Your task to perform on an android device: Show me popular games on the Play Store Image 0: 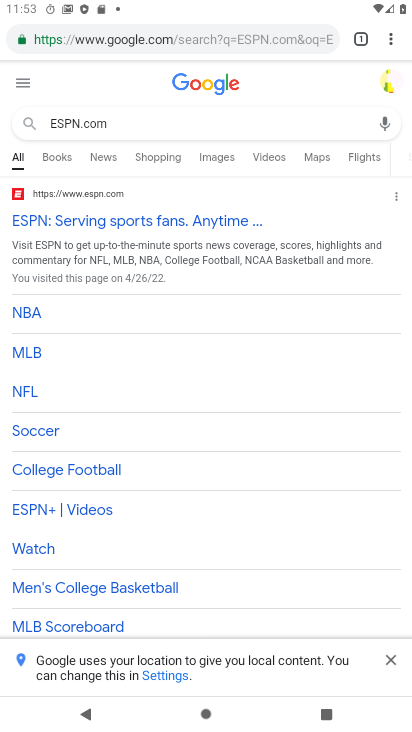
Step 0: press home button
Your task to perform on an android device: Show me popular games on the Play Store Image 1: 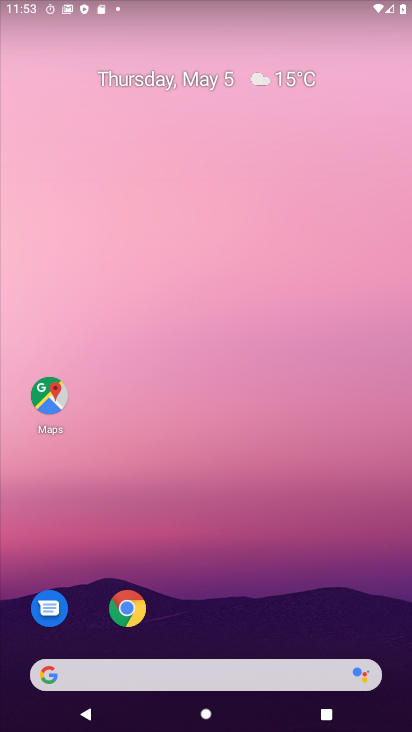
Step 1: drag from (224, 598) to (169, 108)
Your task to perform on an android device: Show me popular games on the Play Store Image 2: 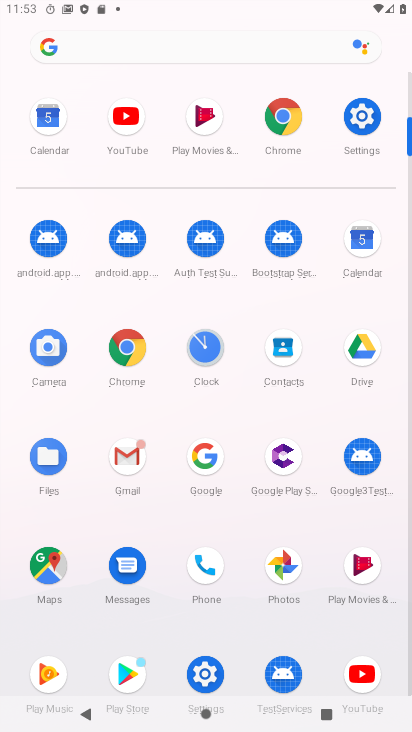
Step 2: drag from (159, 498) to (169, 299)
Your task to perform on an android device: Show me popular games on the Play Store Image 3: 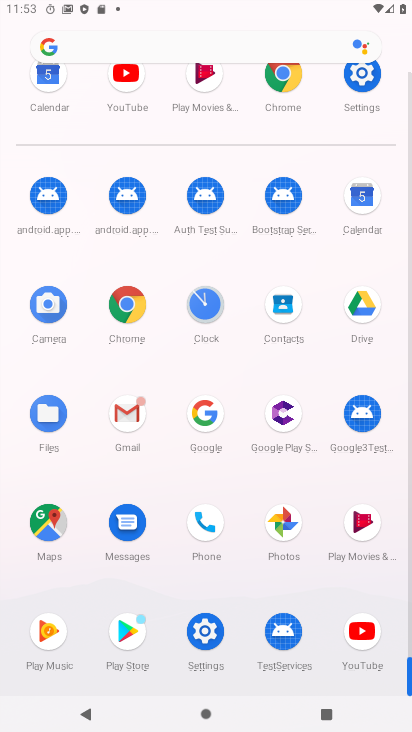
Step 3: click (124, 635)
Your task to perform on an android device: Show me popular games on the Play Store Image 4: 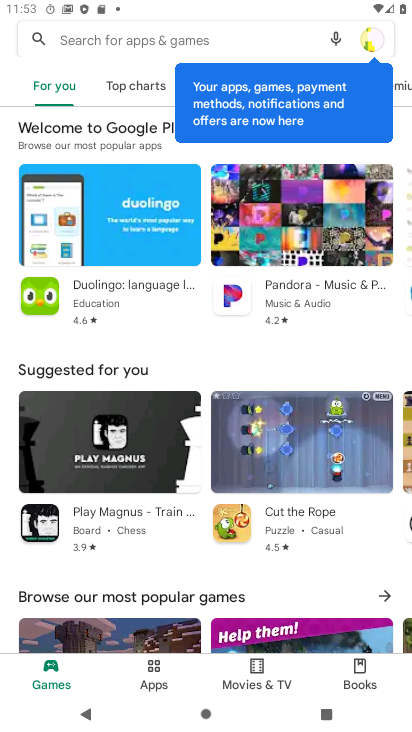
Step 4: click (201, 29)
Your task to perform on an android device: Show me popular games on the Play Store Image 5: 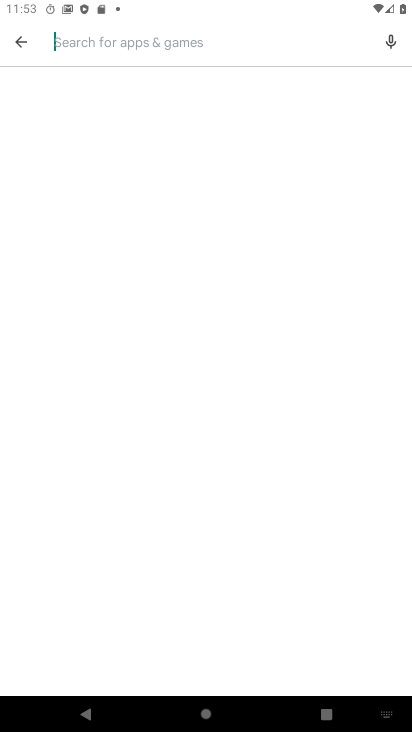
Step 5: type "popular games"
Your task to perform on an android device: Show me popular games on the Play Store Image 6: 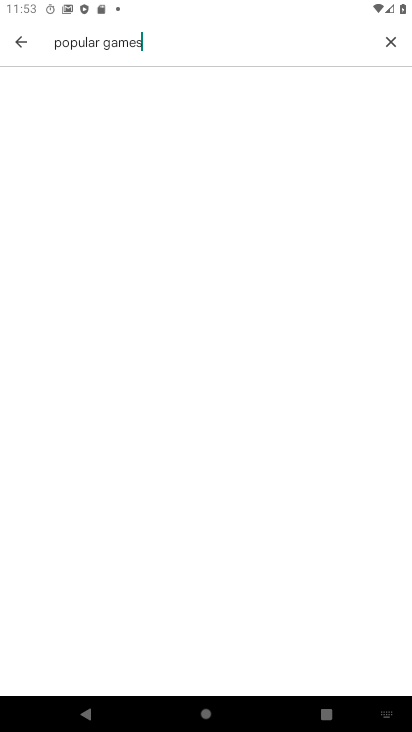
Step 6: type ""
Your task to perform on an android device: Show me popular games on the Play Store Image 7: 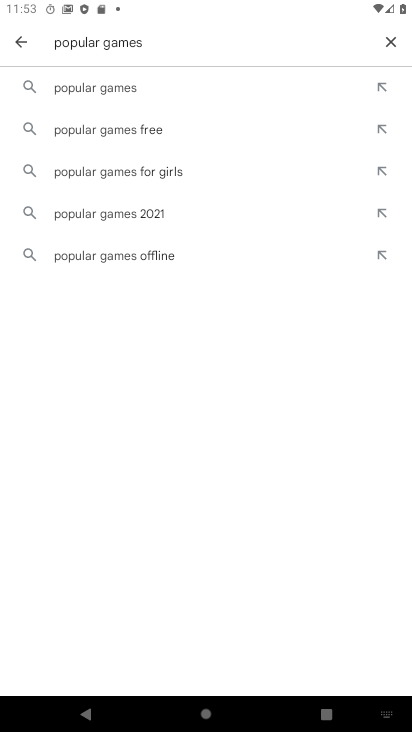
Step 7: click (105, 85)
Your task to perform on an android device: Show me popular games on the Play Store Image 8: 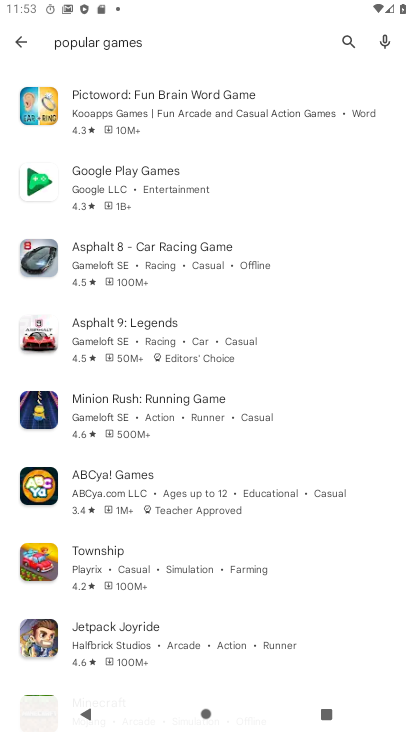
Step 8: task complete